Your task to perform on an android device: Open Google Maps Image 0: 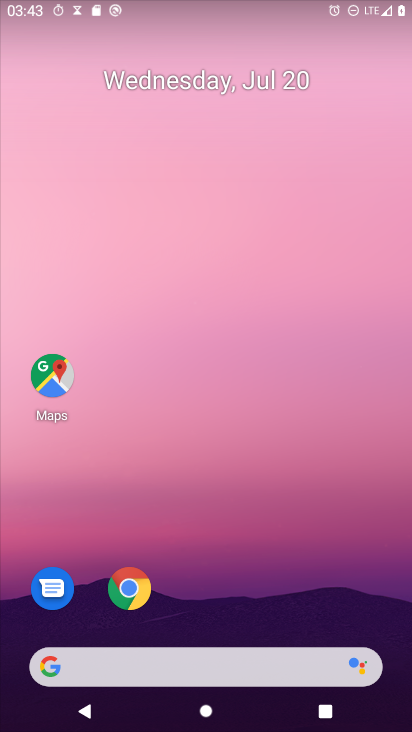
Step 0: drag from (227, 627) to (200, 105)
Your task to perform on an android device: Open Google Maps Image 1: 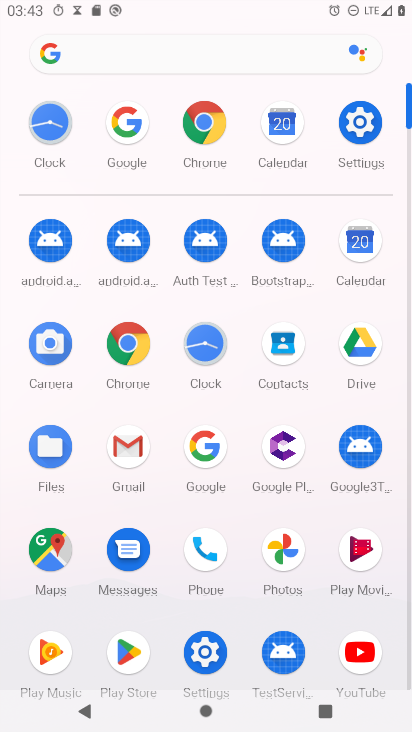
Step 1: click (42, 546)
Your task to perform on an android device: Open Google Maps Image 2: 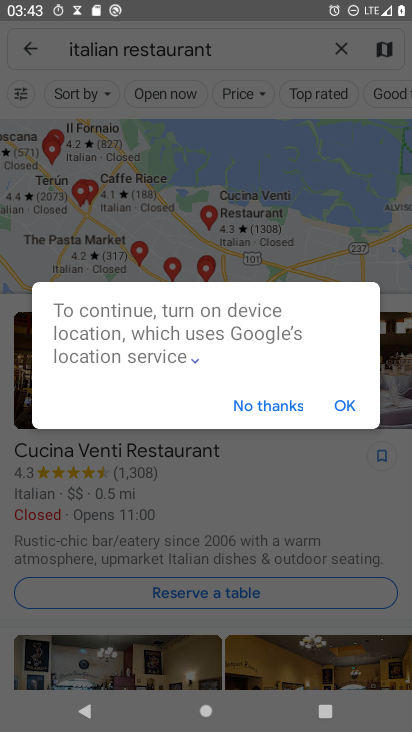
Step 2: click (351, 398)
Your task to perform on an android device: Open Google Maps Image 3: 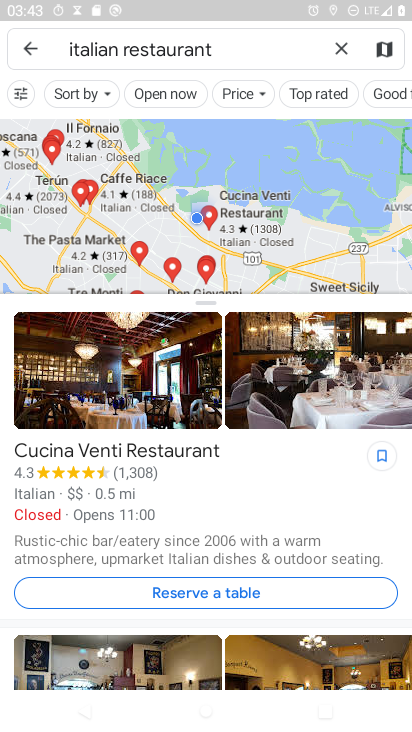
Step 3: click (28, 54)
Your task to perform on an android device: Open Google Maps Image 4: 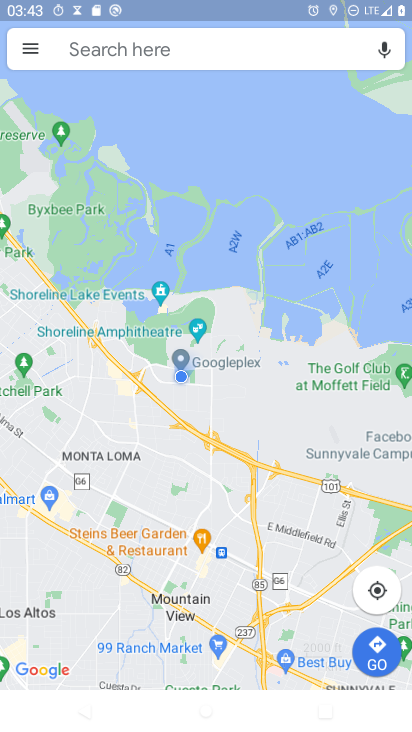
Step 4: task complete